Your task to perform on an android device: see creations saved in the google photos Image 0: 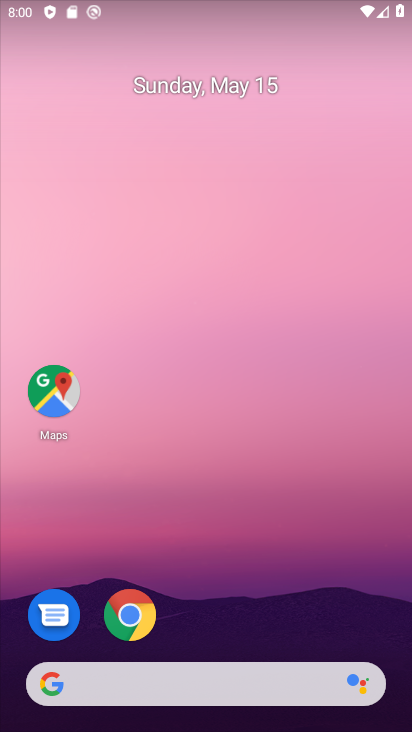
Step 0: drag from (222, 661) to (378, 54)
Your task to perform on an android device: see creations saved in the google photos Image 1: 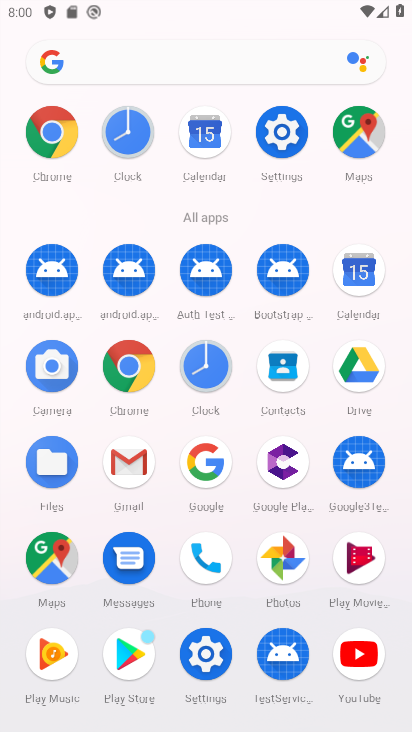
Step 1: click (270, 548)
Your task to perform on an android device: see creations saved in the google photos Image 2: 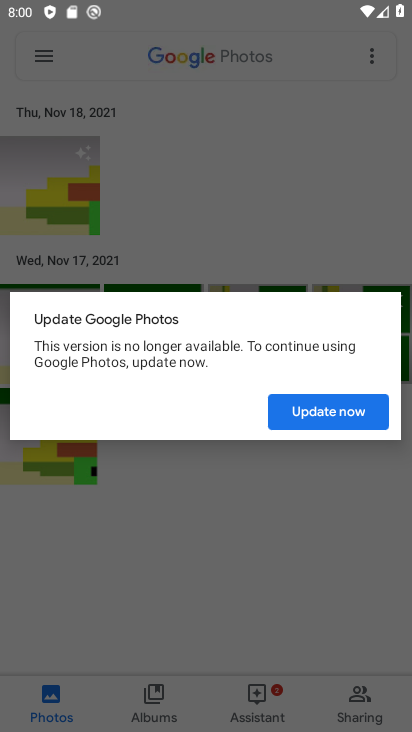
Step 2: click (314, 415)
Your task to perform on an android device: see creations saved in the google photos Image 3: 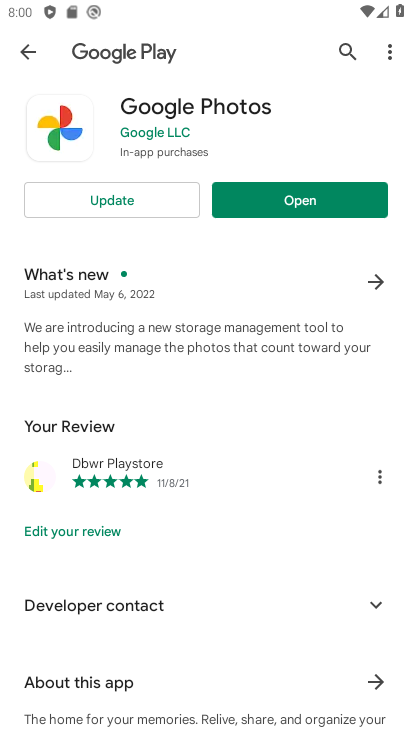
Step 3: click (327, 188)
Your task to perform on an android device: see creations saved in the google photos Image 4: 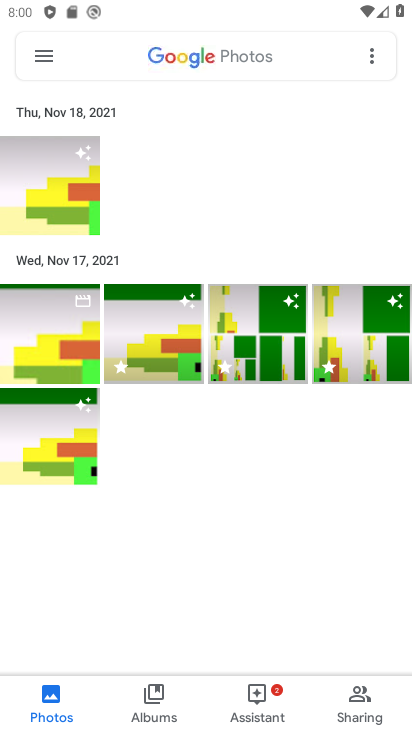
Step 4: click (261, 345)
Your task to perform on an android device: see creations saved in the google photos Image 5: 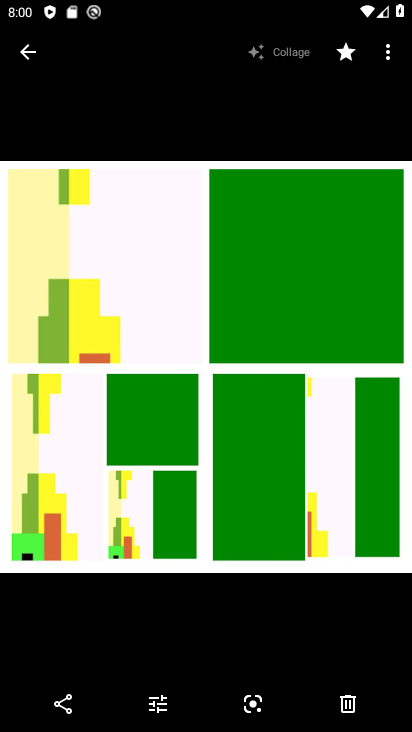
Step 5: click (380, 65)
Your task to perform on an android device: see creations saved in the google photos Image 6: 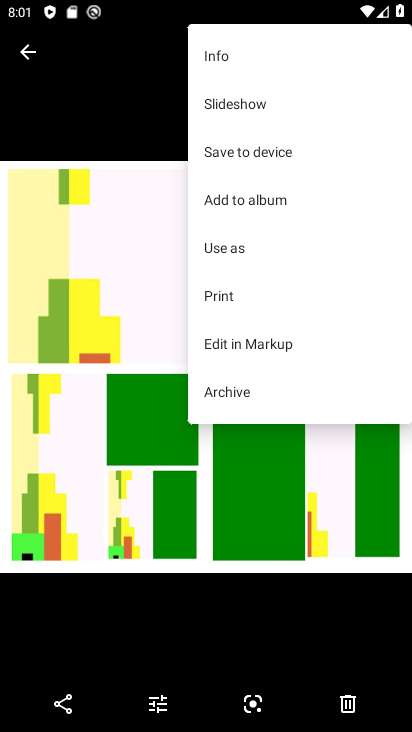
Step 6: click (267, 158)
Your task to perform on an android device: see creations saved in the google photos Image 7: 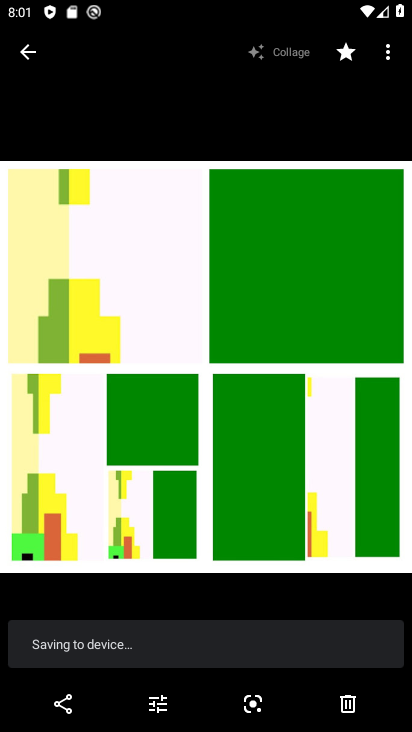
Step 7: task complete